Your task to perform on an android device: Go to Yahoo.com Image 0: 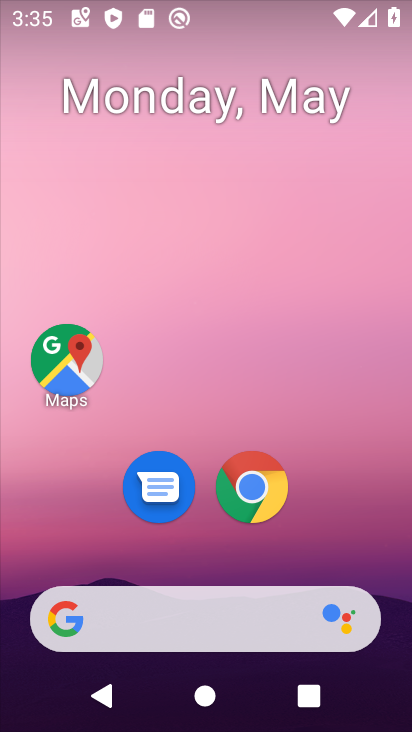
Step 0: click (258, 481)
Your task to perform on an android device: Go to Yahoo.com Image 1: 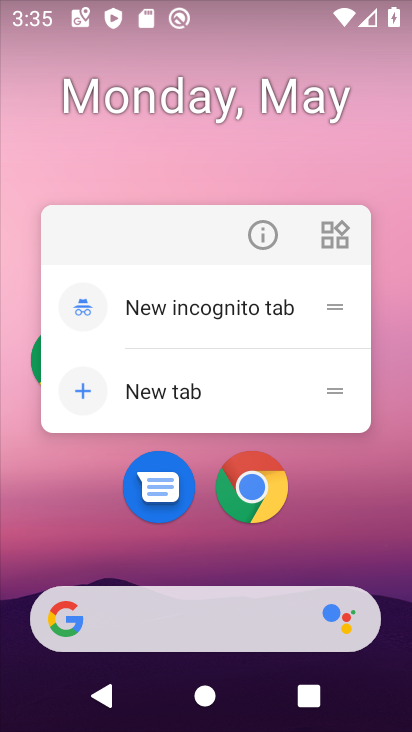
Step 1: click (253, 497)
Your task to perform on an android device: Go to Yahoo.com Image 2: 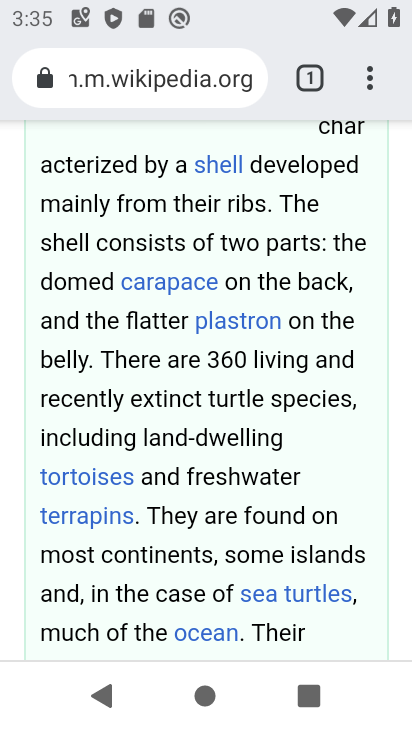
Step 2: click (366, 83)
Your task to perform on an android device: Go to Yahoo.com Image 3: 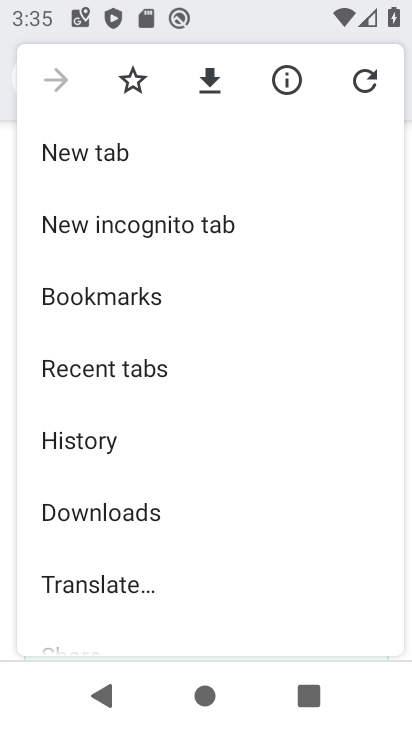
Step 3: press back button
Your task to perform on an android device: Go to Yahoo.com Image 4: 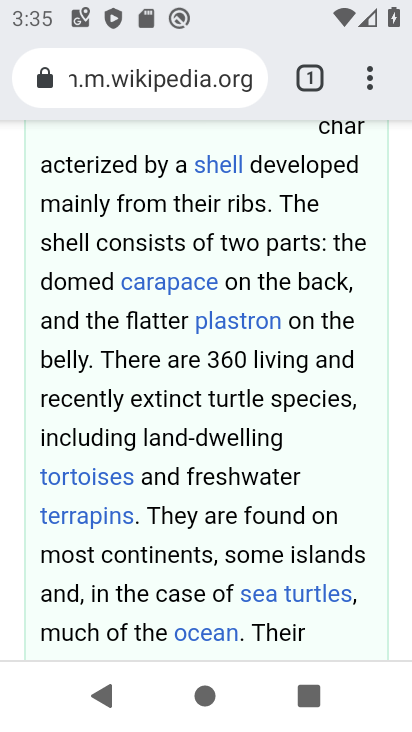
Step 4: click (306, 78)
Your task to perform on an android device: Go to Yahoo.com Image 5: 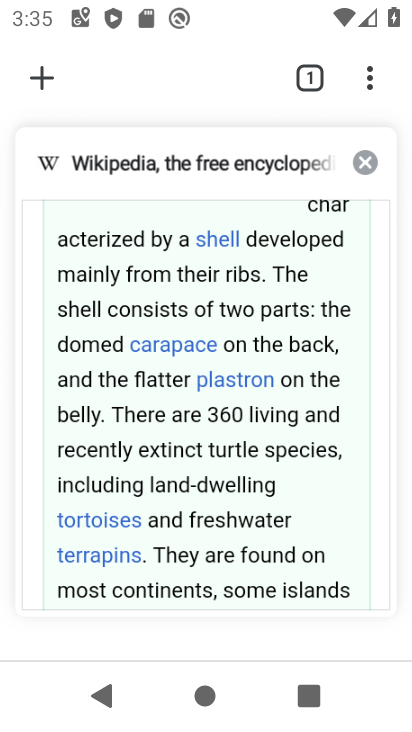
Step 5: click (363, 164)
Your task to perform on an android device: Go to Yahoo.com Image 6: 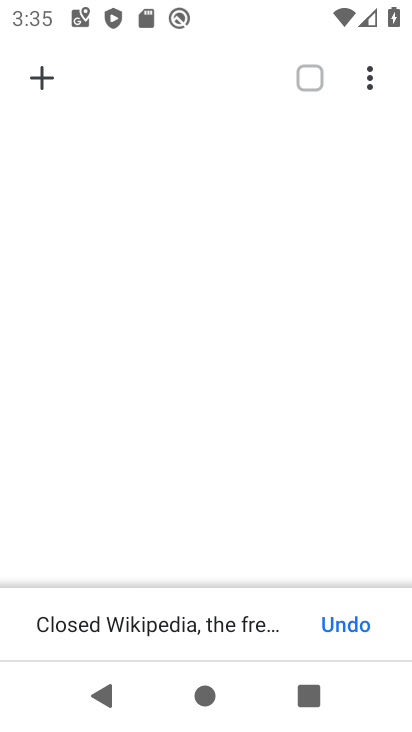
Step 6: click (34, 81)
Your task to perform on an android device: Go to Yahoo.com Image 7: 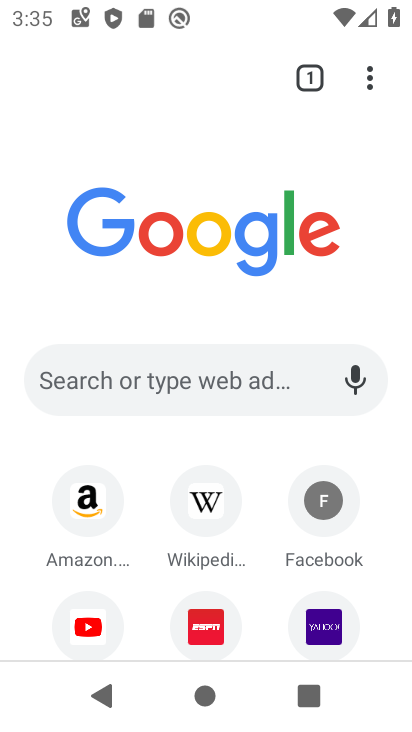
Step 7: click (326, 623)
Your task to perform on an android device: Go to Yahoo.com Image 8: 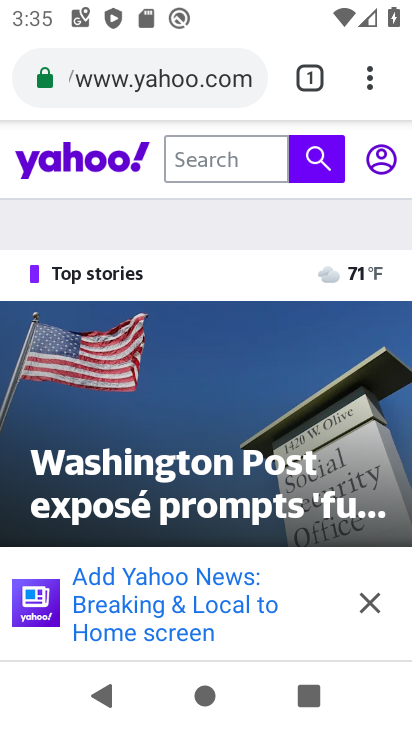
Step 8: task complete